Your task to perform on an android device: When is my next appointment? Image 0: 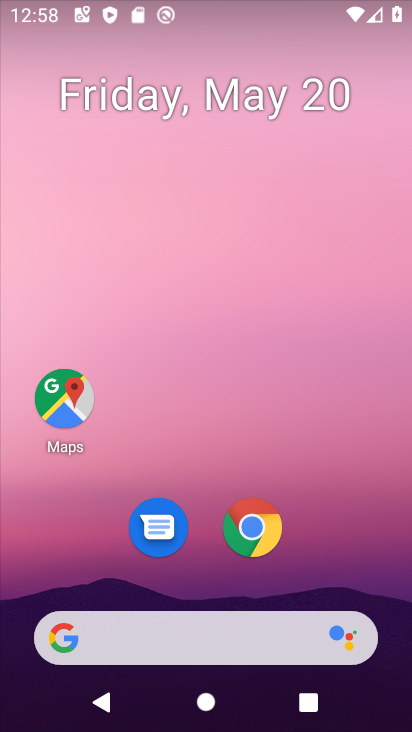
Step 0: drag from (261, 449) to (230, 31)
Your task to perform on an android device: When is my next appointment? Image 1: 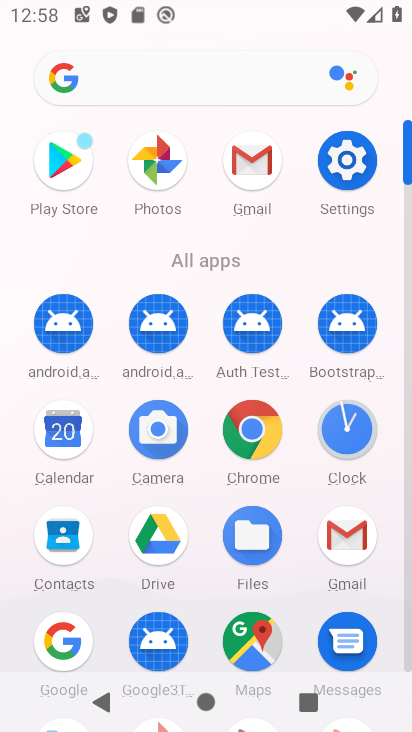
Step 1: click (63, 432)
Your task to perform on an android device: When is my next appointment? Image 2: 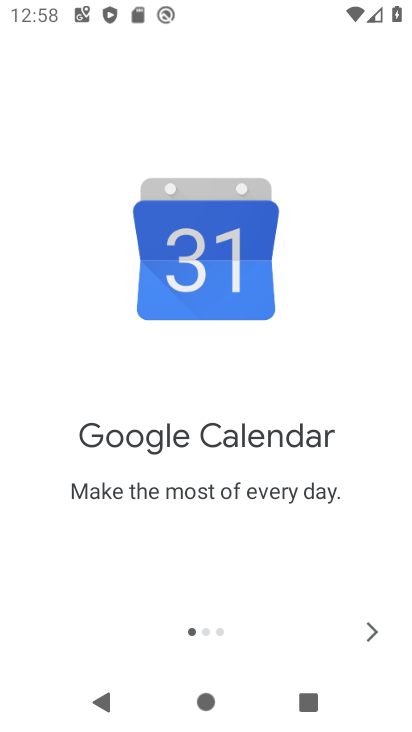
Step 2: click (368, 626)
Your task to perform on an android device: When is my next appointment? Image 3: 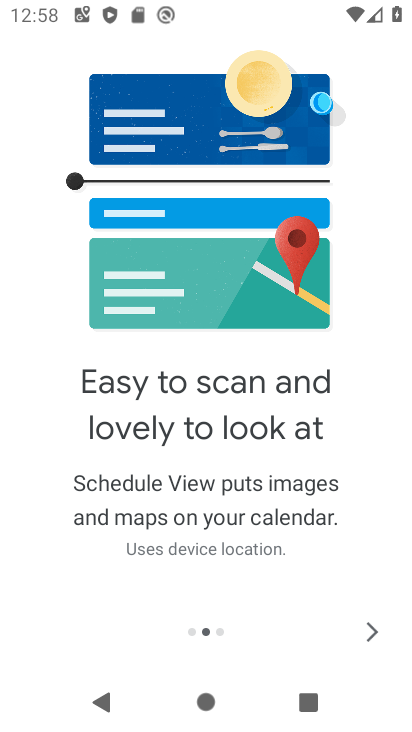
Step 3: click (368, 626)
Your task to perform on an android device: When is my next appointment? Image 4: 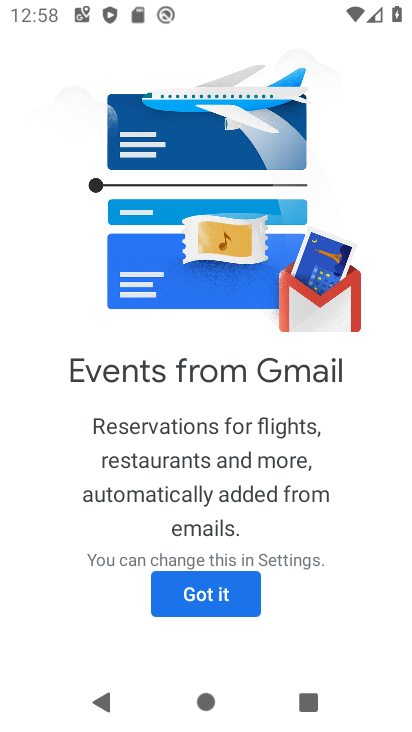
Step 4: click (240, 593)
Your task to perform on an android device: When is my next appointment? Image 5: 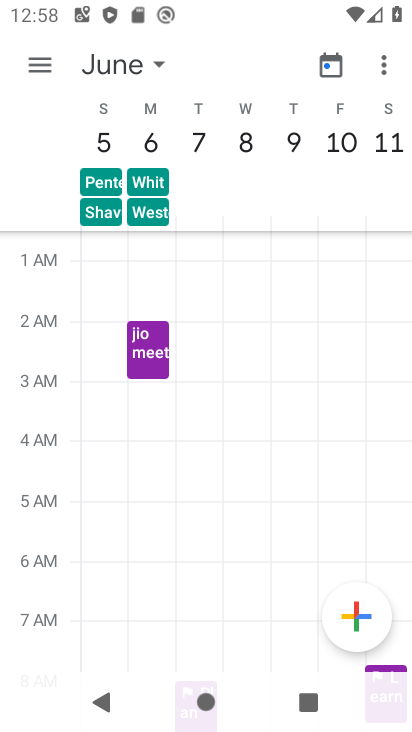
Step 5: drag from (110, 434) to (396, 443)
Your task to perform on an android device: When is my next appointment? Image 6: 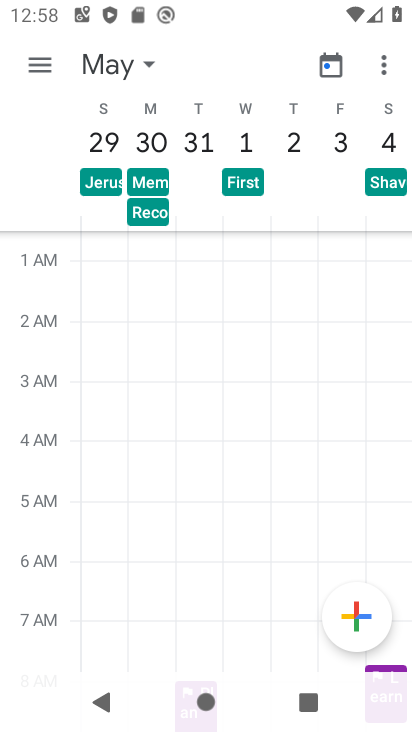
Step 6: drag from (107, 456) to (386, 478)
Your task to perform on an android device: When is my next appointment? Image 7: 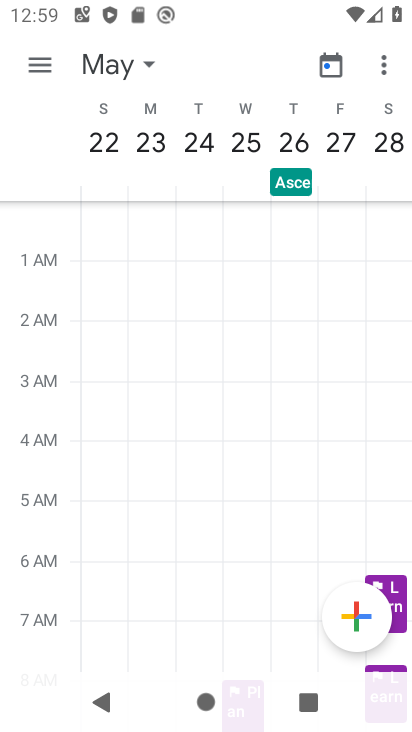
Step 7: drag from (105, 458) to (410, 454)
Your task to perform on an android device: When is my next appointment? Image 8: 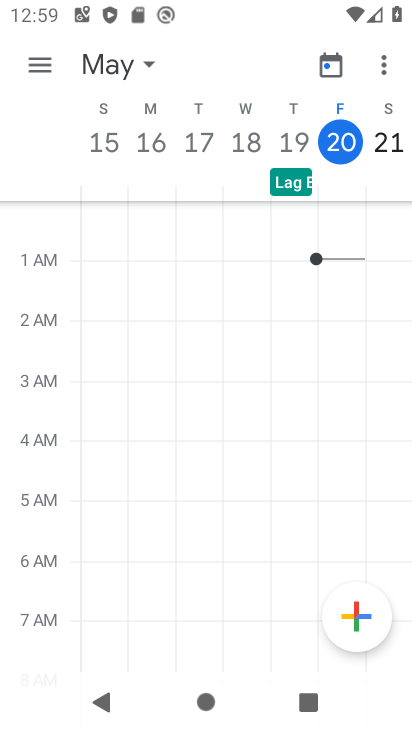
Step 8: click (331, 134)
Your task to perform on an android device: When is my next appointment? Image 9: 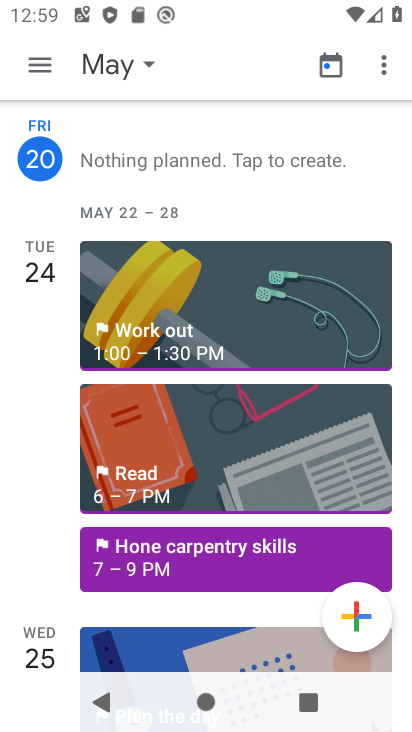
Step 9: task complete